Your task to perform on an android device: open chrome privacy settings Image 0: 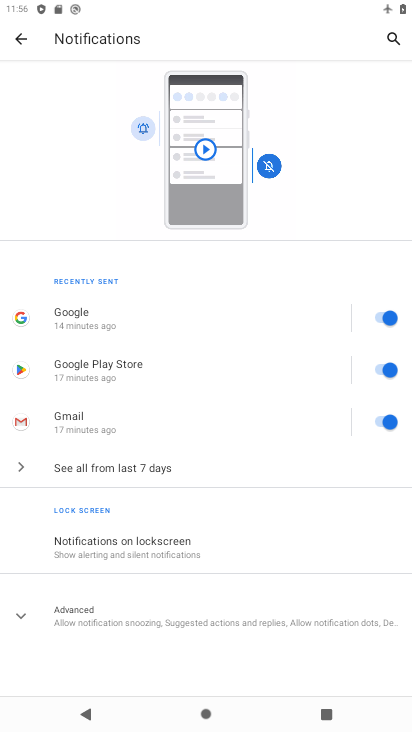
Step 0: press home button
Your task to perform on an android device: open chrome privacy settings Image 1: 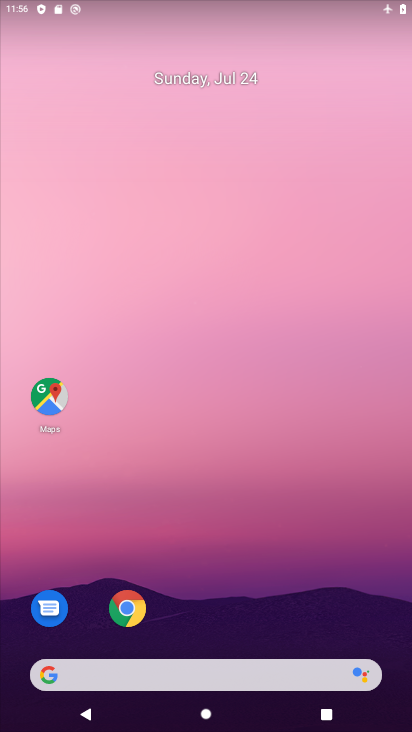
Step 1: click (122, 591)
Your task to perform on an android device: open chrome privacy settings Image 2: 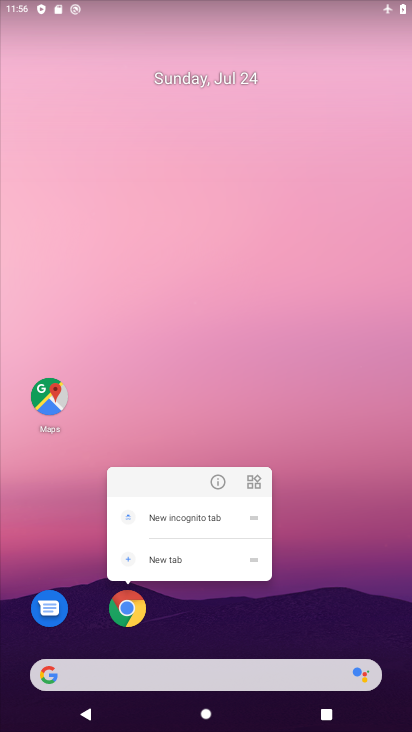
Step 2: click (134, 600)
Your task to perform on an android device: open chrome privacy settings Image 3: 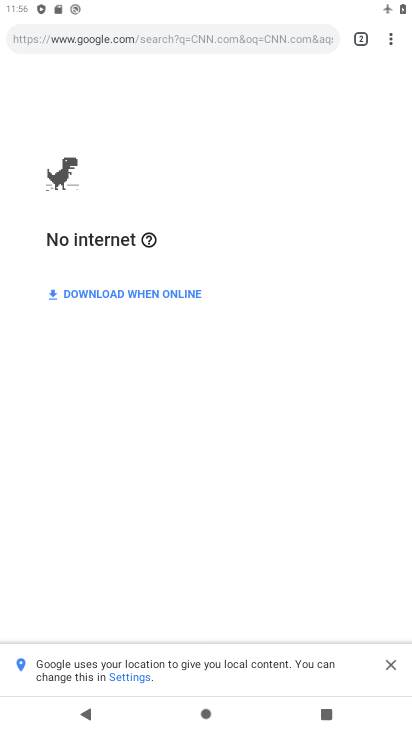
Step 3: click (392, 31)
Your task to perform on an android device: open chrome privacy settings Image 4: 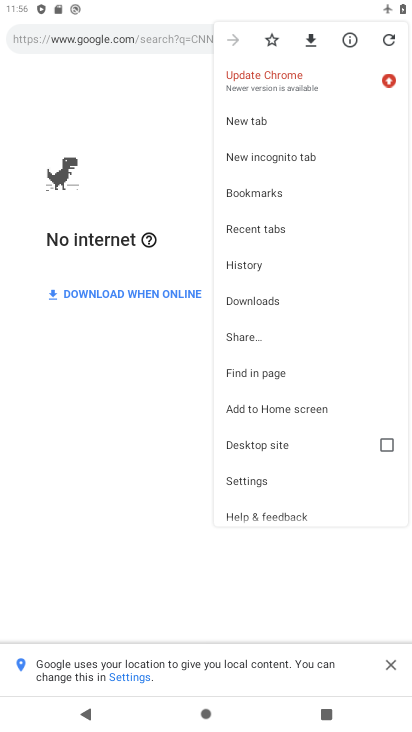
Step 4: click (255, 485)
Your task to perform on an android device: open chrome privacy settings Image 5: 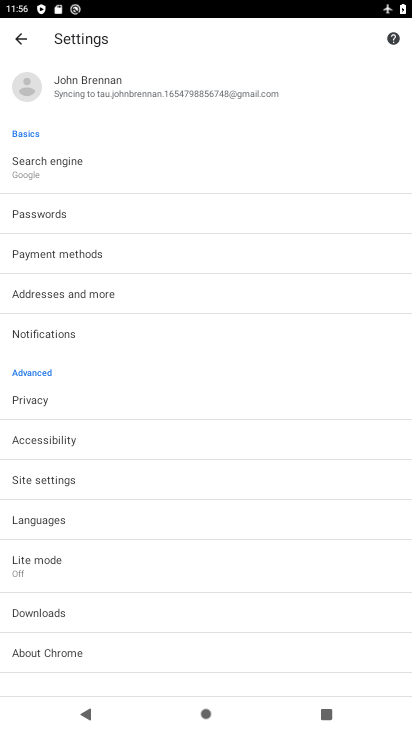
Step 5: click (59, 404)
Your task to perform on an android device: open chrome privacy settings Image 6: 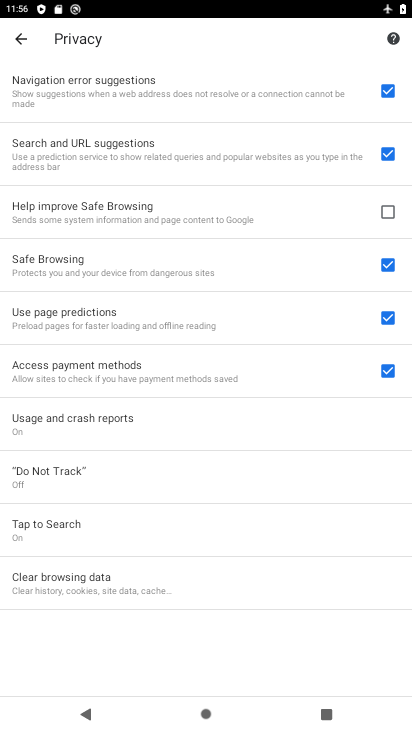
Step 6: task complete